Your task to perform on an android device: Turn off the flashlight Image 0: 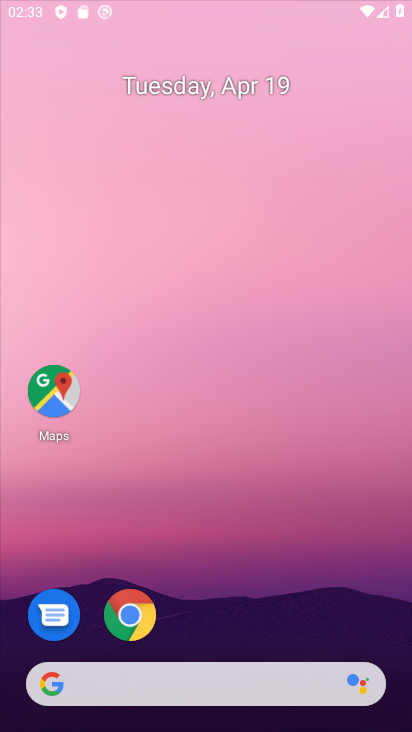
Step 0: drag from (263, 498) to (266, 257)
Your task to perform on an android device: Turn off the flashlight Image 1: 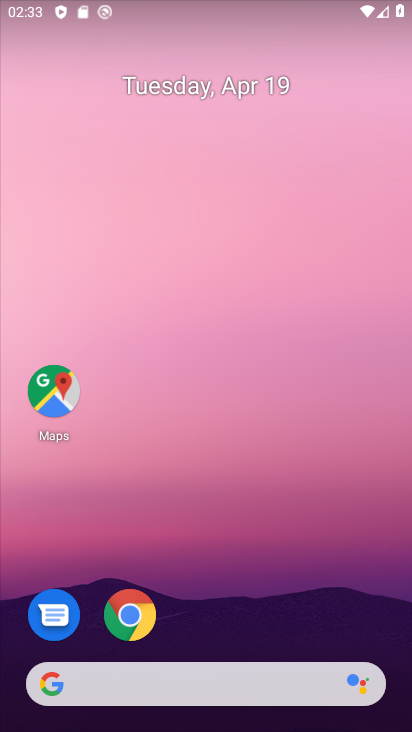
Step 1: drag from (280, 616) to (318, 151)
Your task to perform on an android device: Turn off the flashlight Image 2: 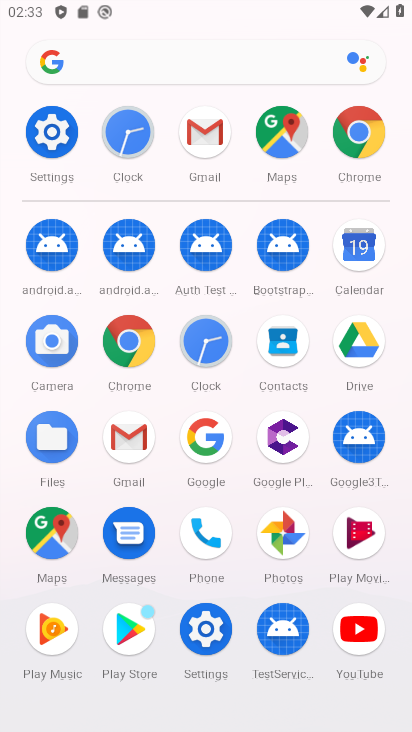
Step 2: click (55, 122)
Your task to perform on an android device: Turn off the flashlight Image 3: 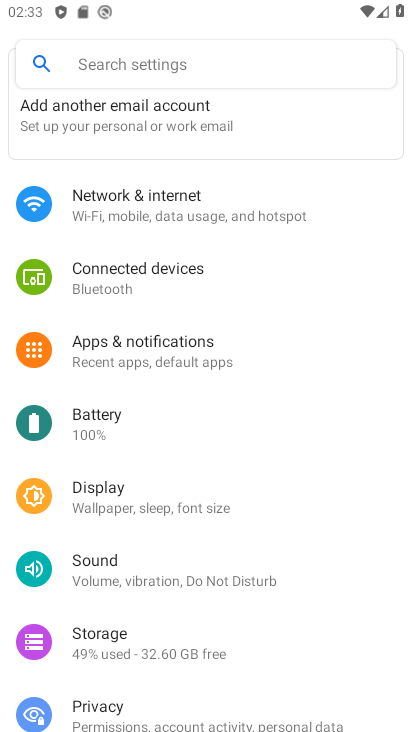
Step 3: task complete